Your task to perform on an android device: Open location settings Image 0: 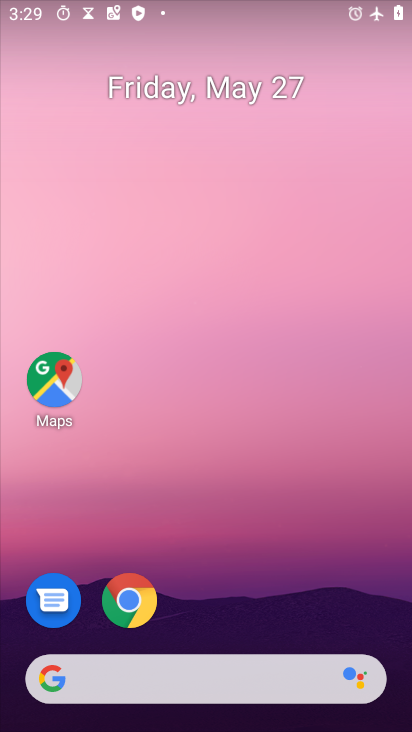
Step 0: drag from (248, 513) to (208, 34)
Your task to perform on an android device: Open location settings Image 1: 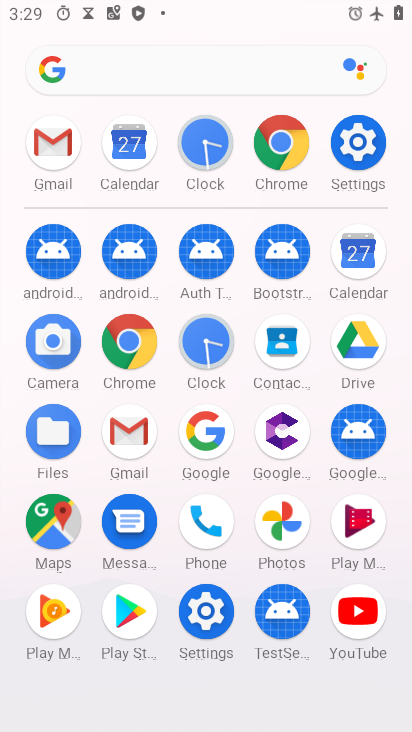
Step 1: drag from (21, 565) to (30, 258)
Your task to perform on an android device: Open location settings Image 2: 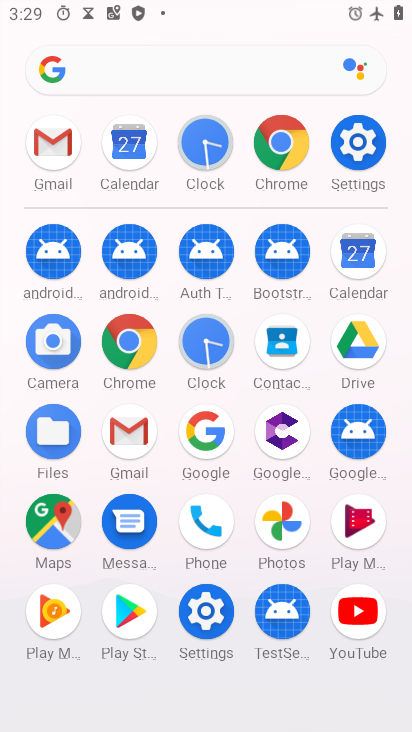
Step 2: click (209, 613)
Your task to perform on an android device: Open location settings Image 3: 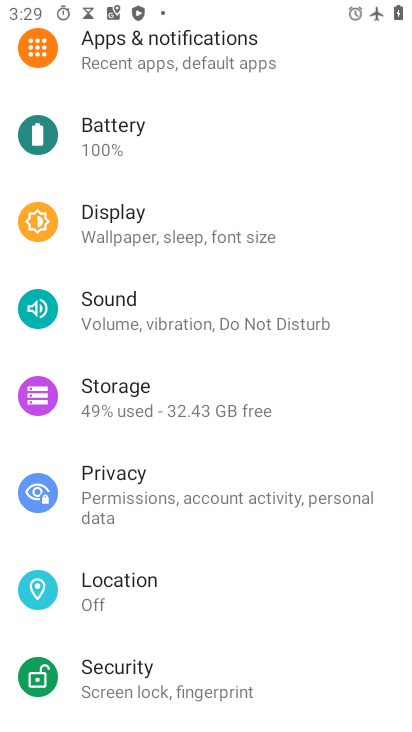
Step 3: click (145, 590)
Your task to perform on an android device: Open location settings Image 4: 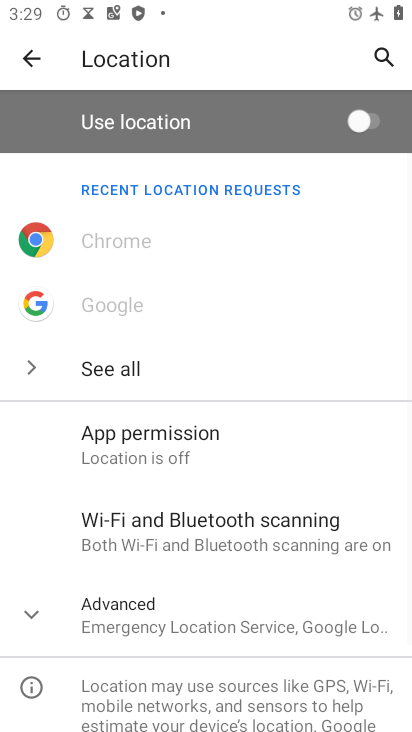
Step 4: click (60, 620)
Your task to perform on an android device: Open location settings Image 5: 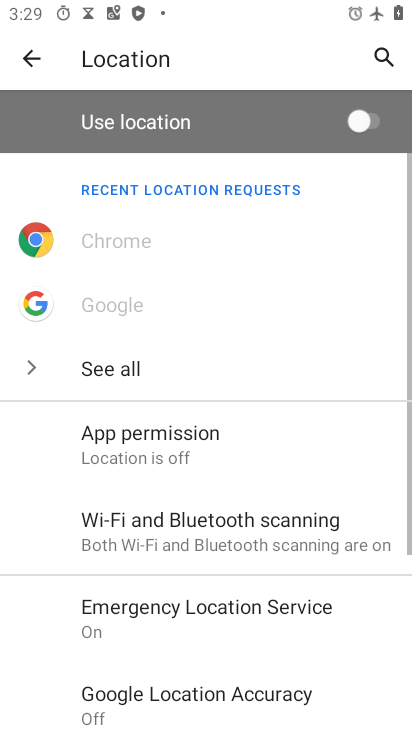
Step 5: task complete